Your task to perform on an android device: change notifications settings Image 0: 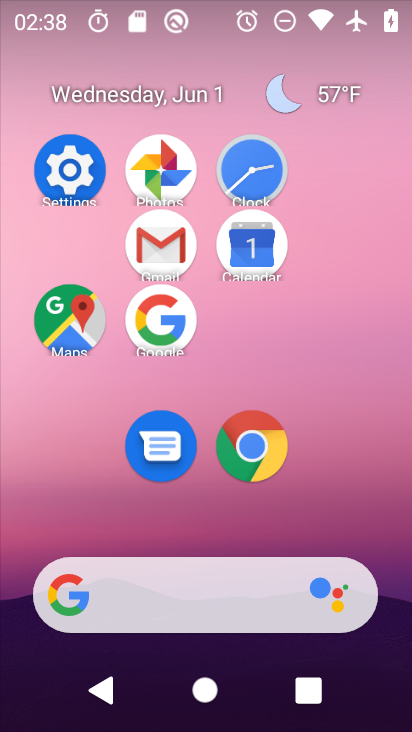
Step 0: click (65, 171)
Your task to perform on an android device: change notifications settings Image 1: 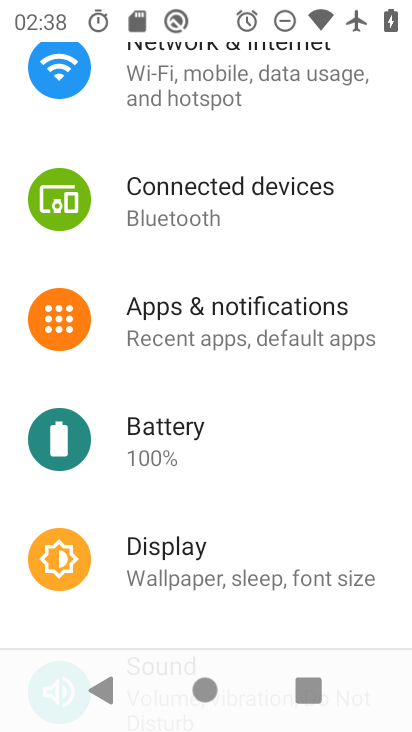
Step 1: click (280, 300)
Your task to perform on an android device: change notifications settings Image 2: 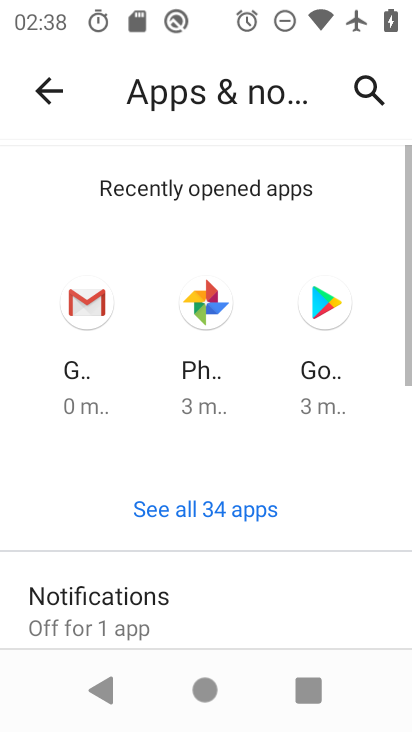
Step 2: drag from (306, 578) to (274, 214)
Your task to perform on an android device: change notifications settings Image 3: 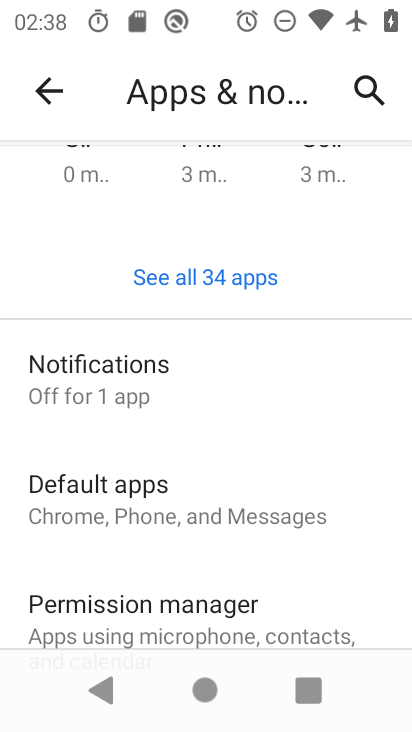
Step 3: click (256, 373)
Your task to perform on an android device: change notifications settings Image 4: 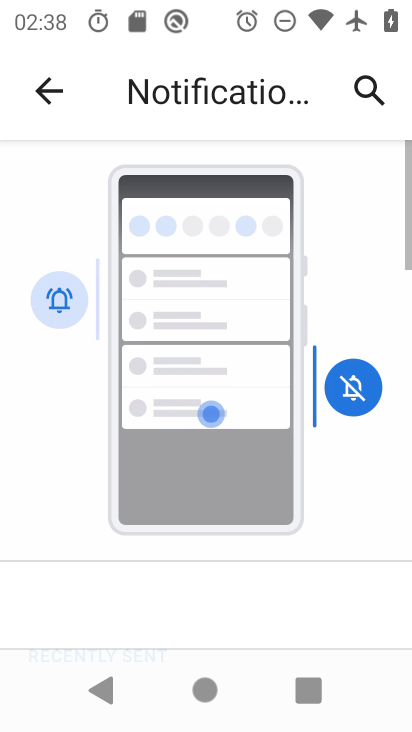
Step 4: drag from (302, 546) to (244, 210)
Your task to perform on an android device: change notifications settings Image 5: 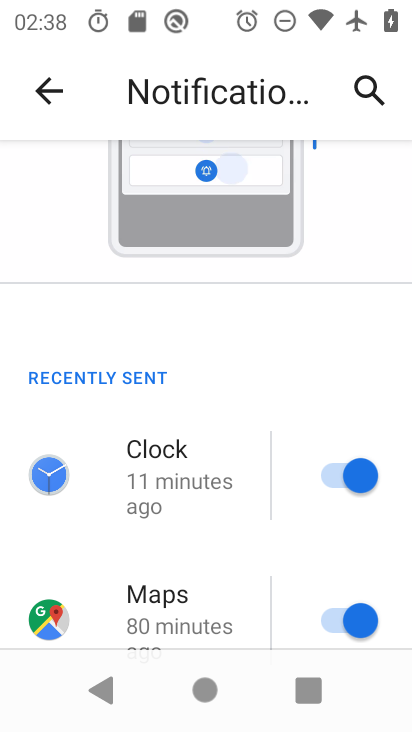
Step 5: drag from (252, 533) to (232, 137)
Your task to perform on an android device: change notifications settings Image 6: 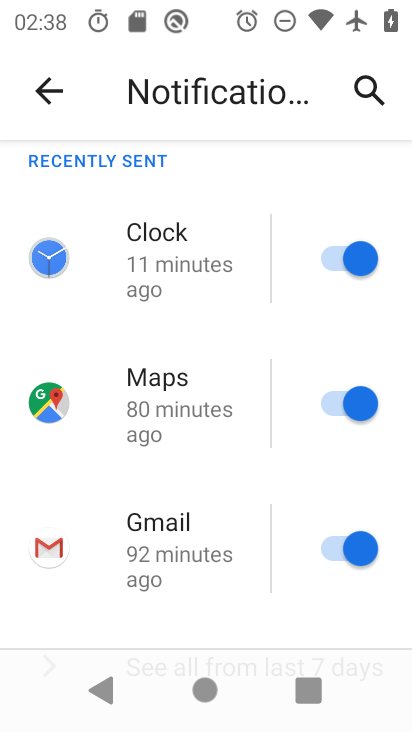
Step 6: drag from (265, 522) to (265, 169)
Your task to perform on an android device: change notifications settings Image 7: 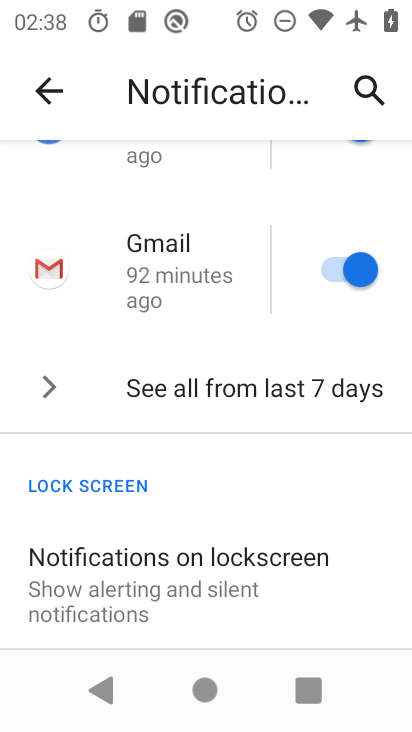
Step 7: drag from (241, 519) to (259, 221)
Your task to perform on an android device: change notifications settings Image 8: 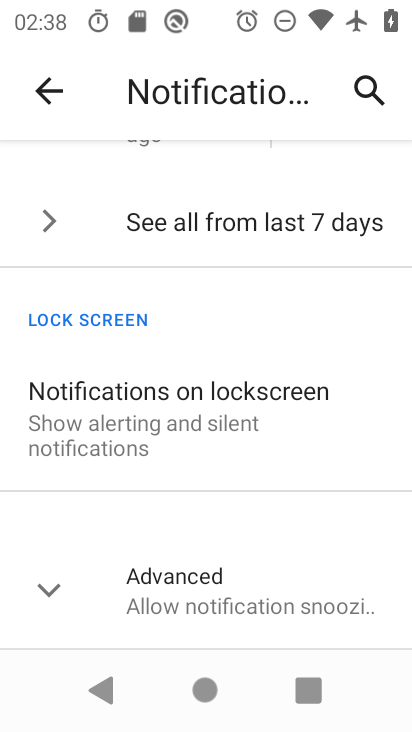
Step 8: click (255, 609)
Your task to perform on an android device: change notifications settings Image 9: 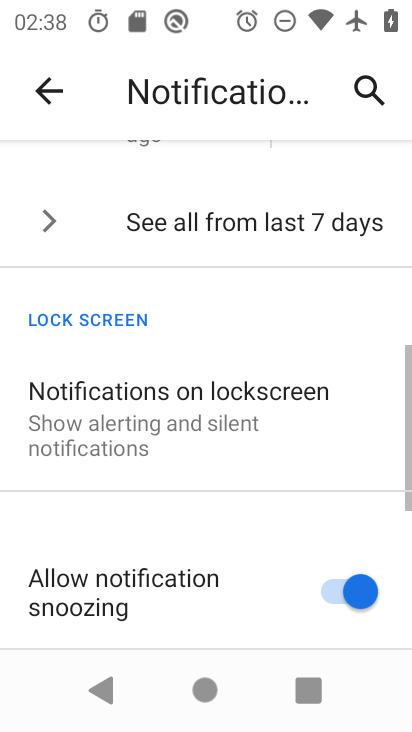
Step 9: drag from (254, 604) to (269, 215)
Your task to perform on an android device: change notifications settings Image 10: 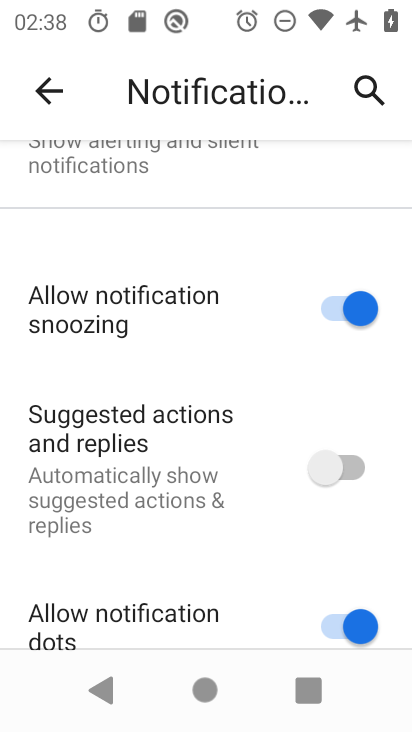
Step 10: click (342, 312)
Your task to perform on an android device: change notifications settings Image 11: 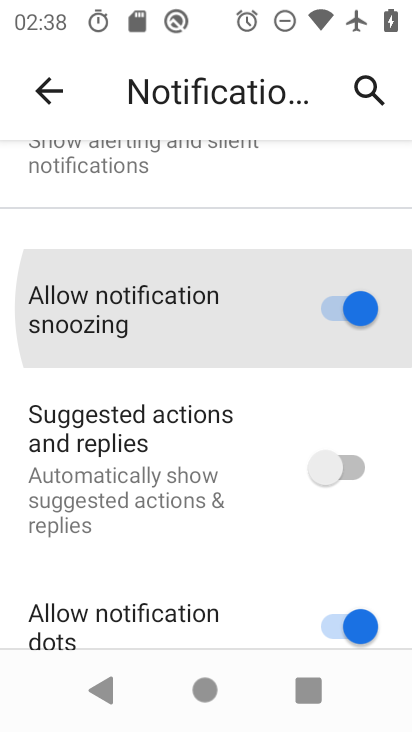
Step 11: click (330, 465)
Your task to perform on an android device: change notifications settings Image 12: 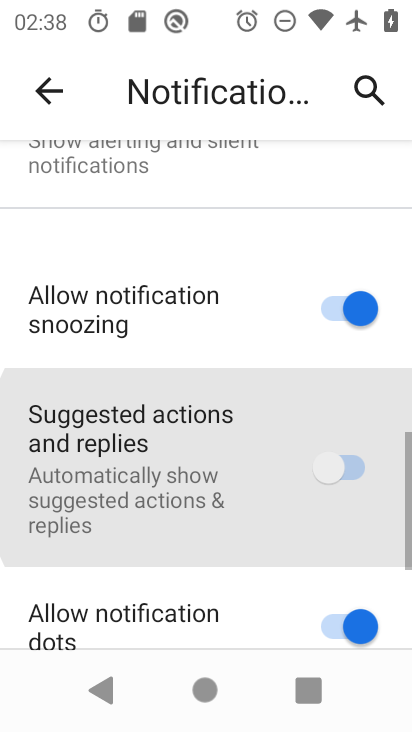
Step 12: click (359, 611)
Your task to perform on an android device: change notifications settings Image 13: 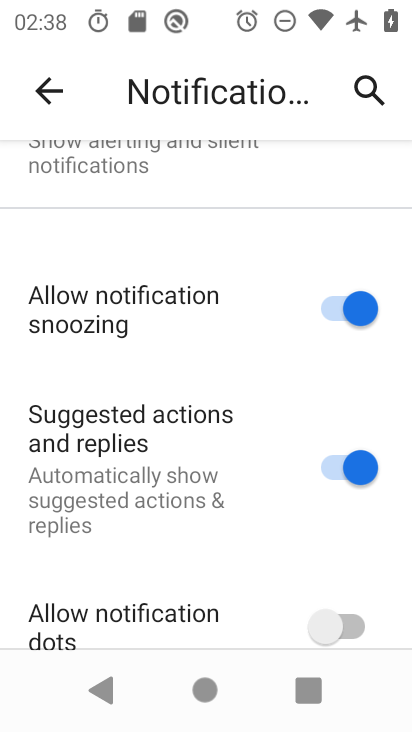
Step 13: task complete